Your task to perform on an android device: open app "Truecaller" (install if not already installed) Image 0: 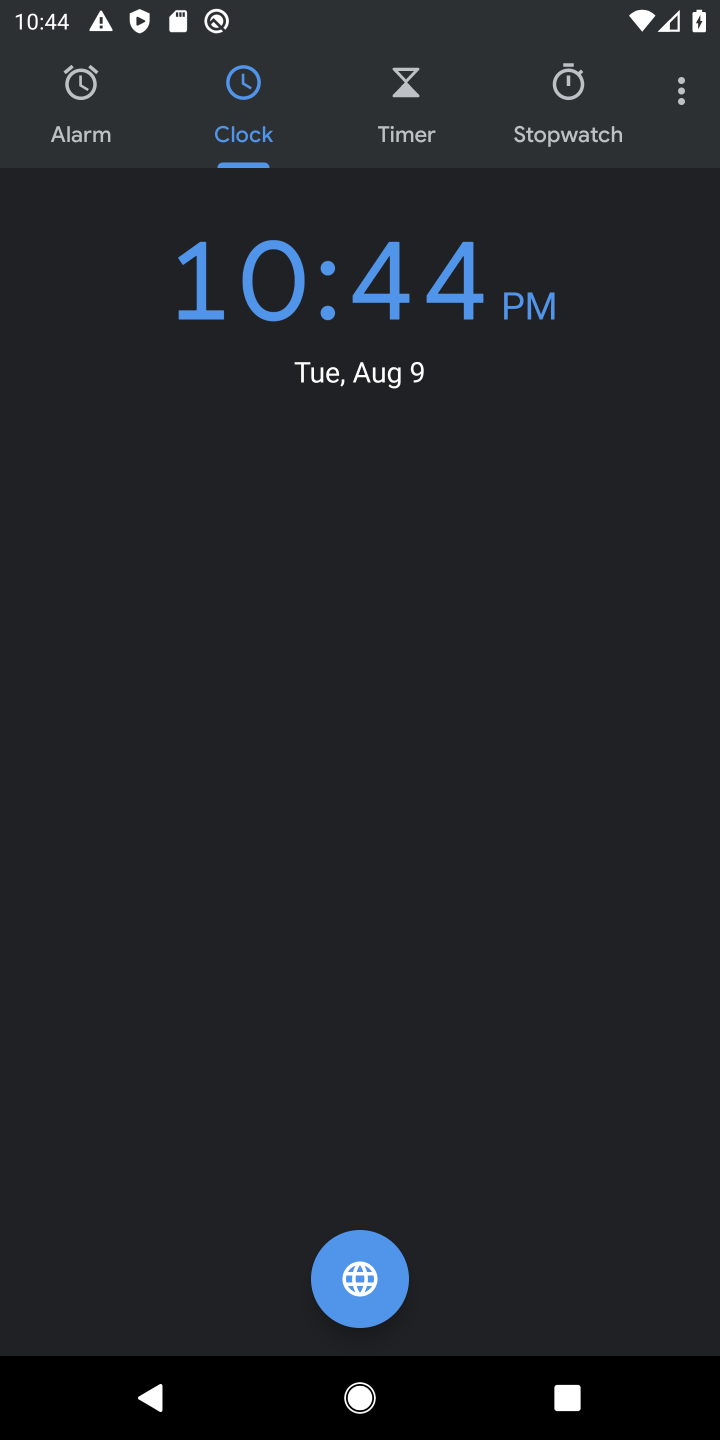
Step 0: press home button
Your task to perform on an android device: open app "Truecaller" (install if not already installed) Image 1: 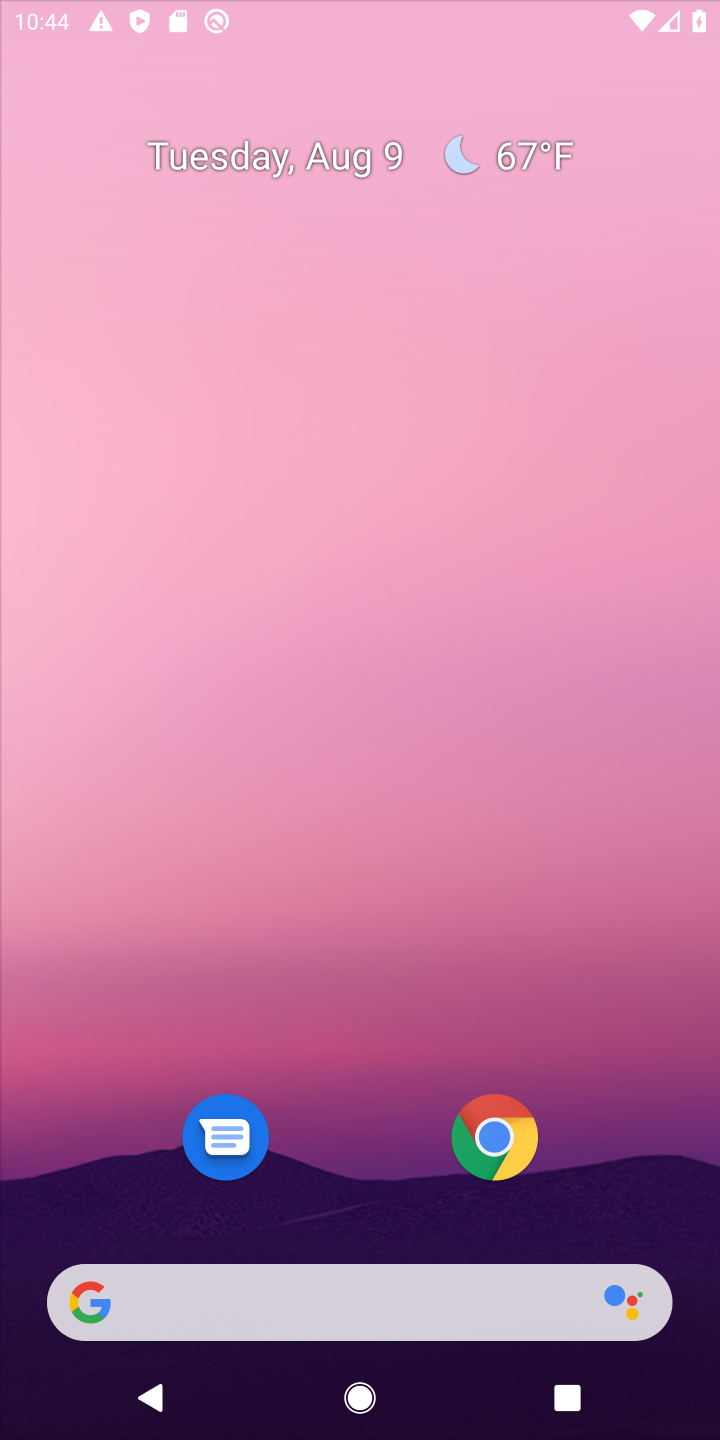
Step 1: drag from (680, 1250) to (374, 84)
Your task to perform on an android device: open app "Truecaller" (install if not already installed) Image 2: 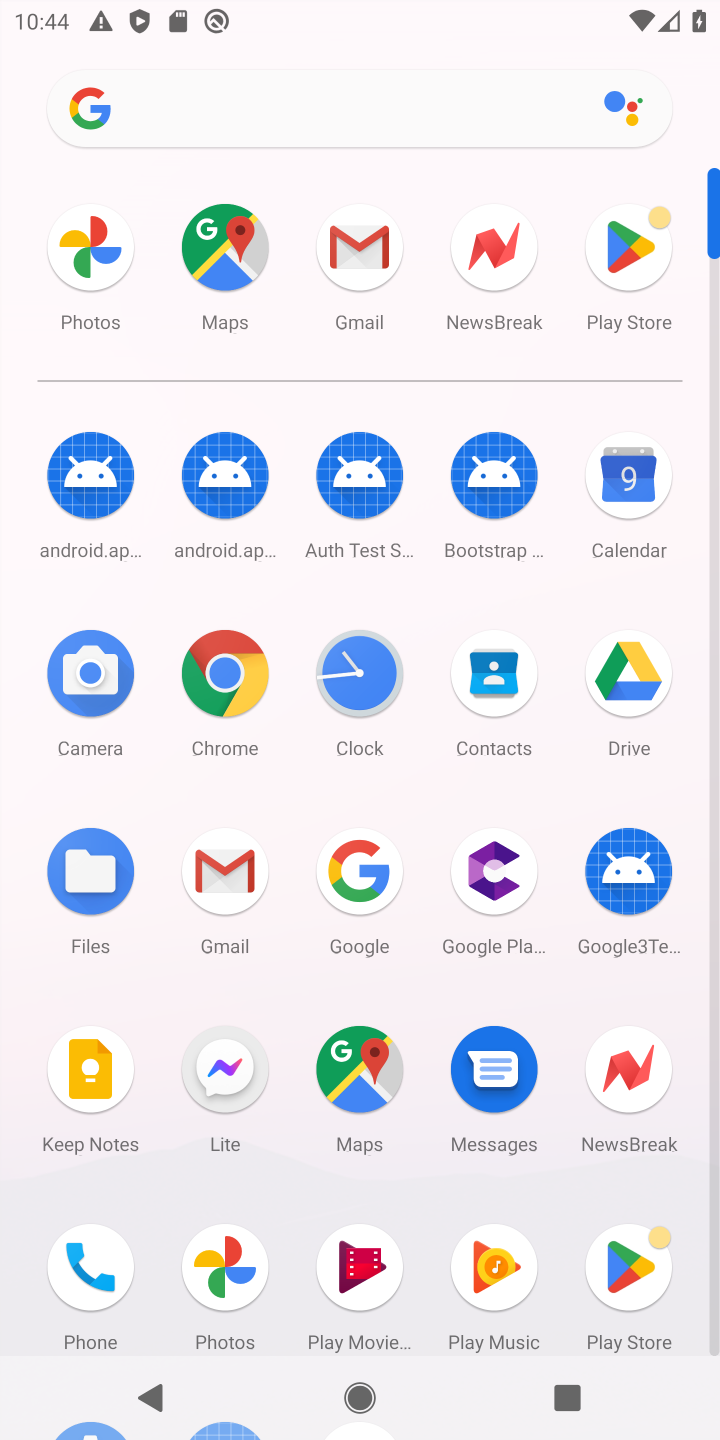
Step 2: click (642, 242)
Your task to perform on an android device: open app "Truecaller" (install if not already installed) Image 3: 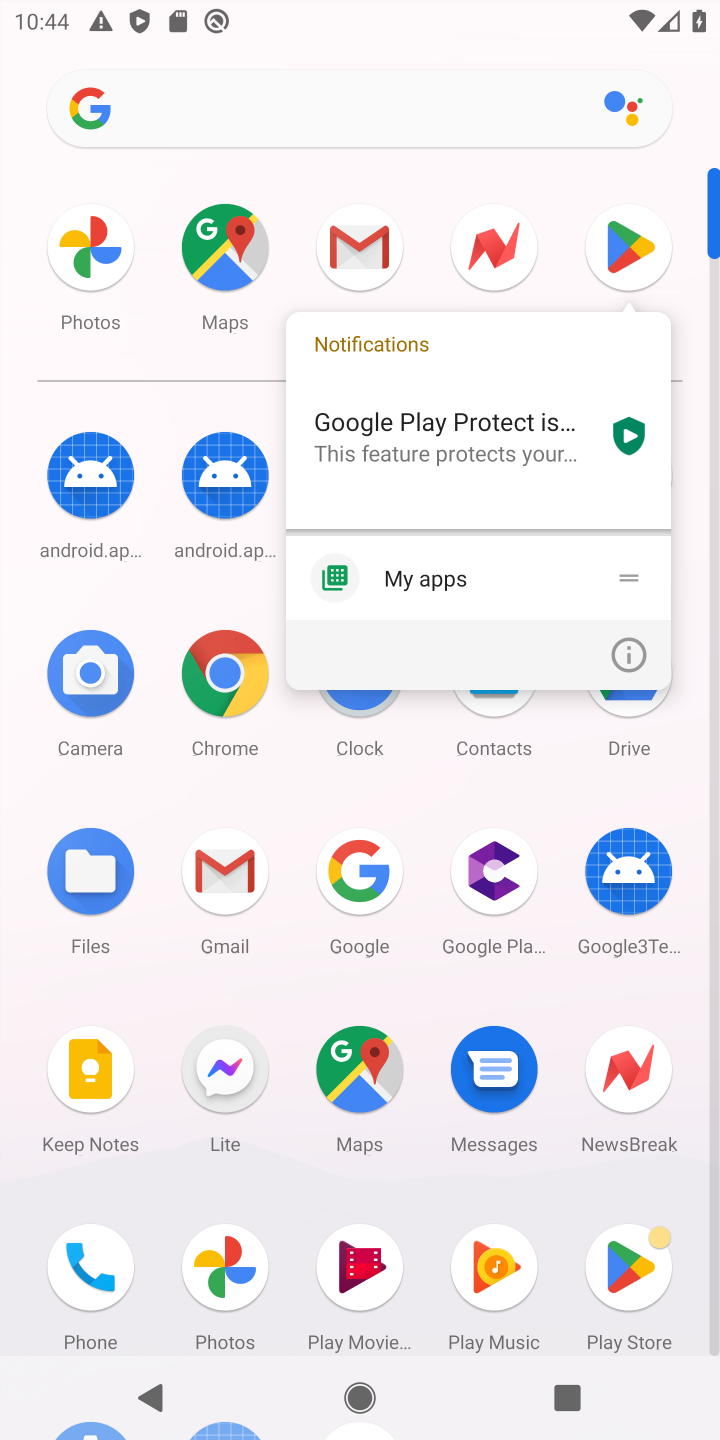
Step 3: click (642, 242)
Your task to perform on an android device: open app "Truecaller" (install if not already installed) Image 4: 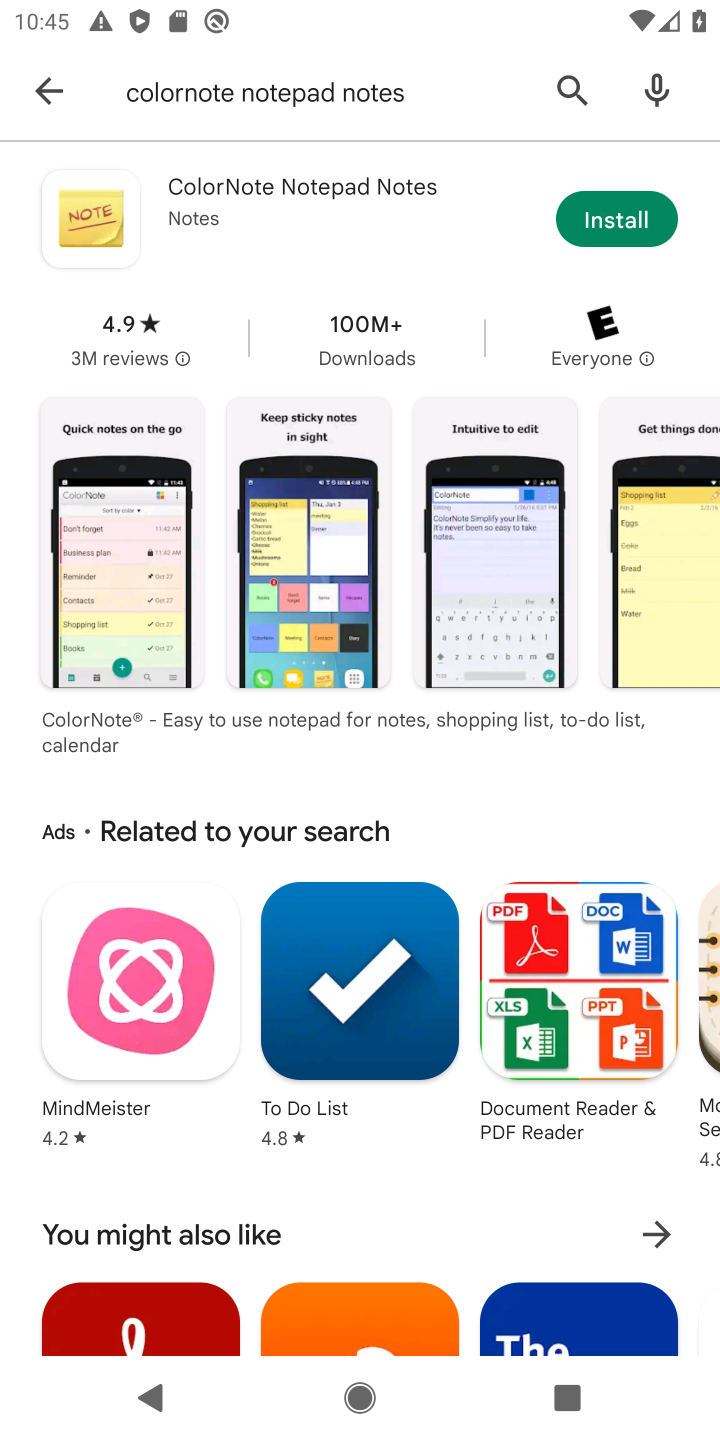
Step 4: press back button
Your task to perform on an android device: open app "Truecaller" (install if not already installed) Image 5: 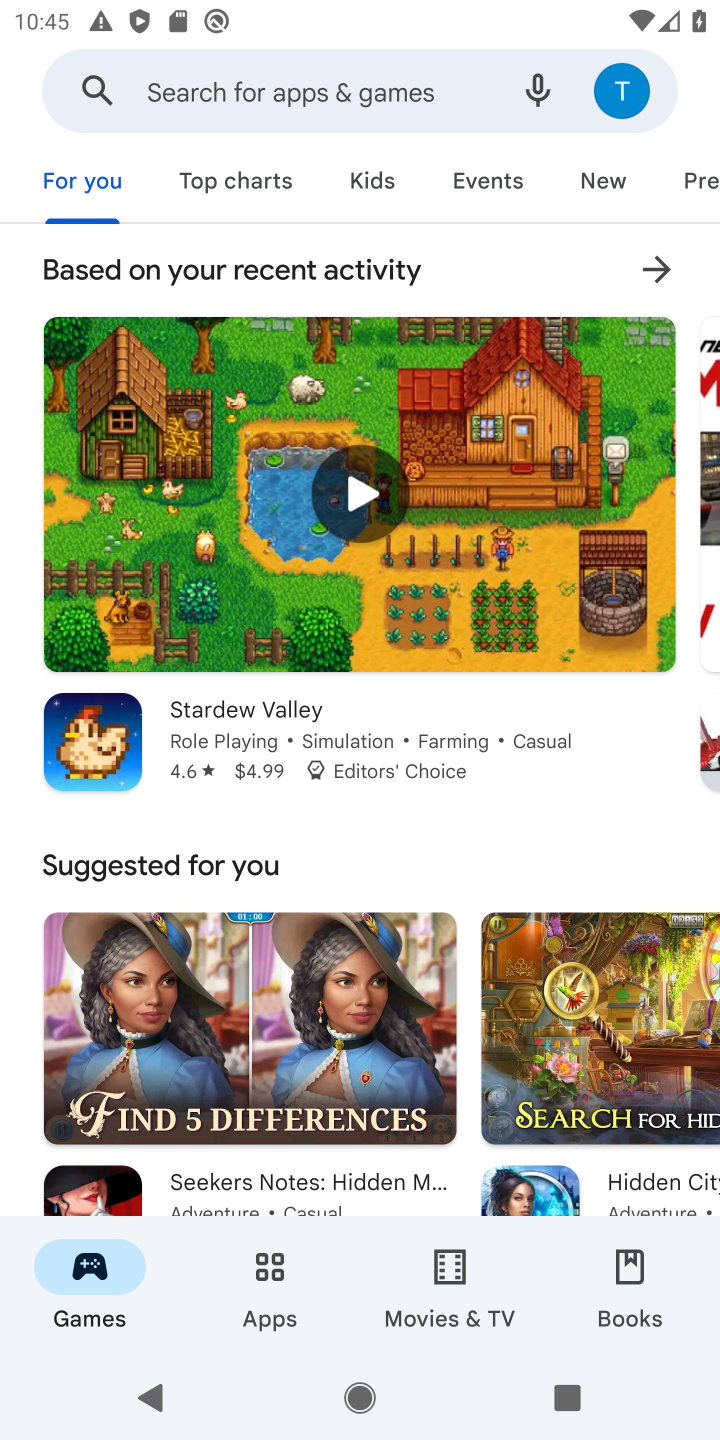
Step 5: click (273, 91)
Your task to perform on an android device: open app "Truecaller" (install if not already installed) Image 6: 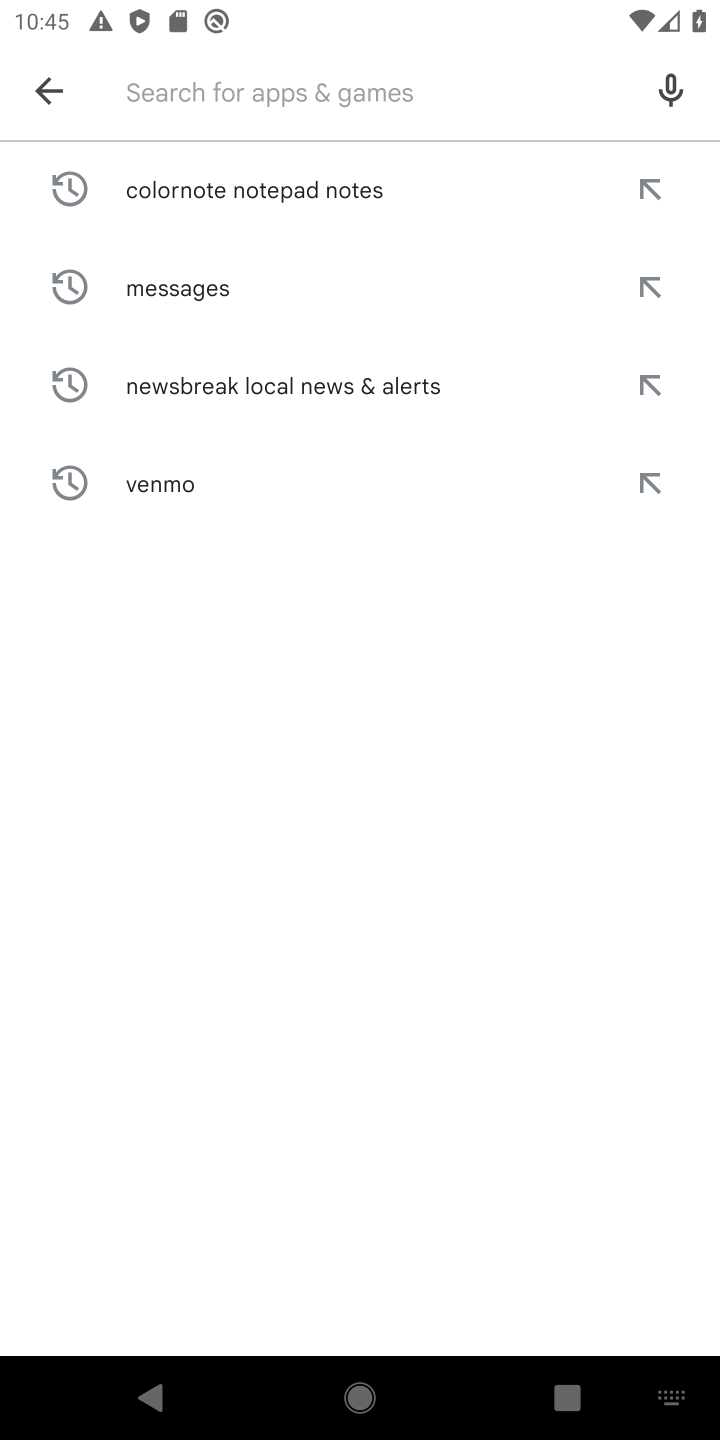
Step 6: type "Truecaller"
Your task to perform on an android device: open app "Truecaller" (install if not already installed) Image 7: 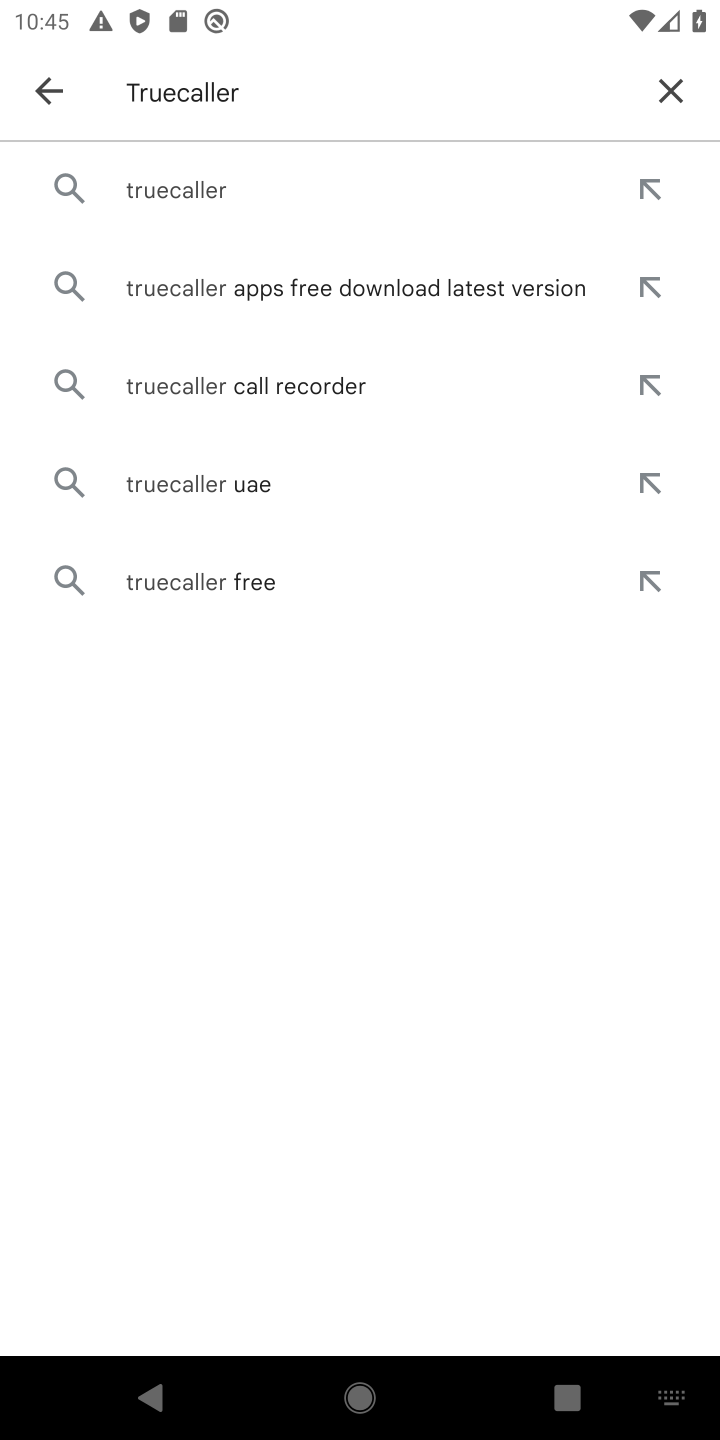
Step 7: click (228, 200)
Your task to perform on an android device: open app "Truecaller" (install if not already installed) Image 8: 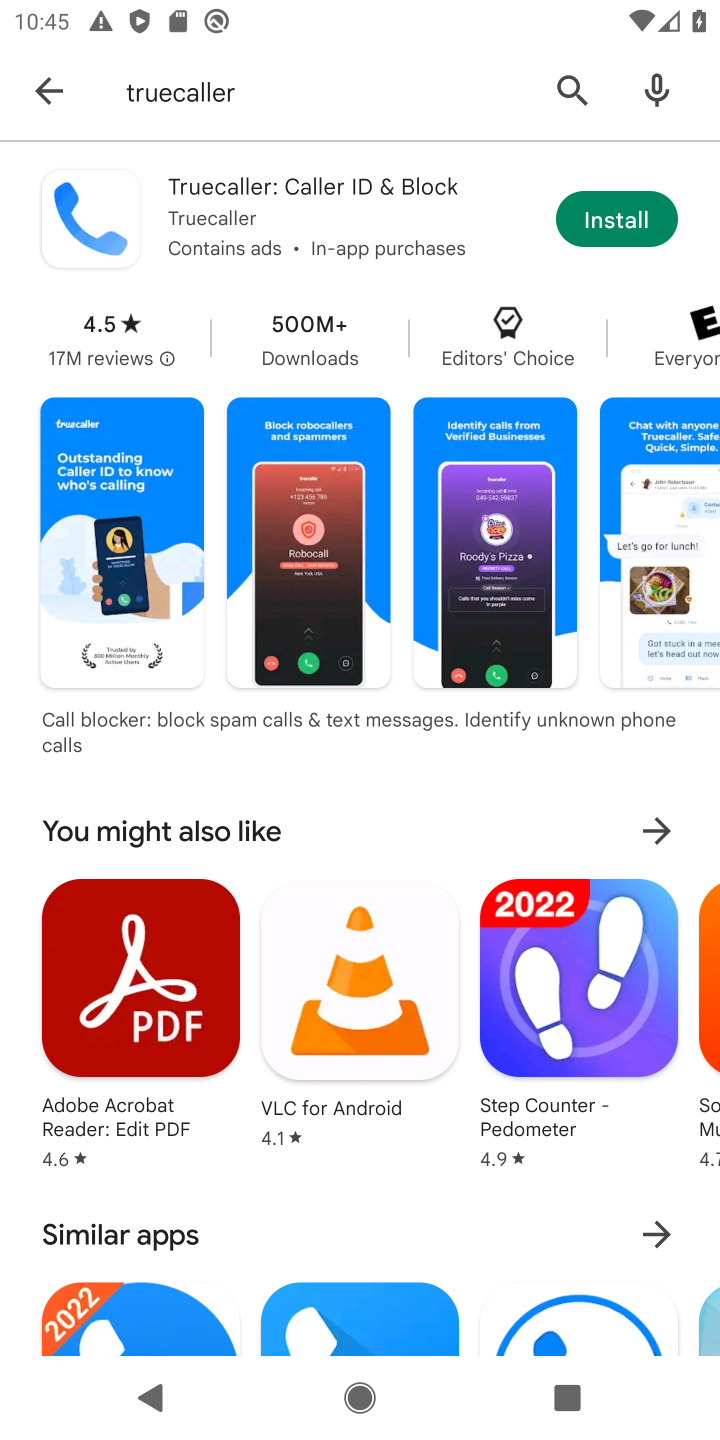
Step 8: task complete